Your task to perform on an android device: Open display settings Image 0: 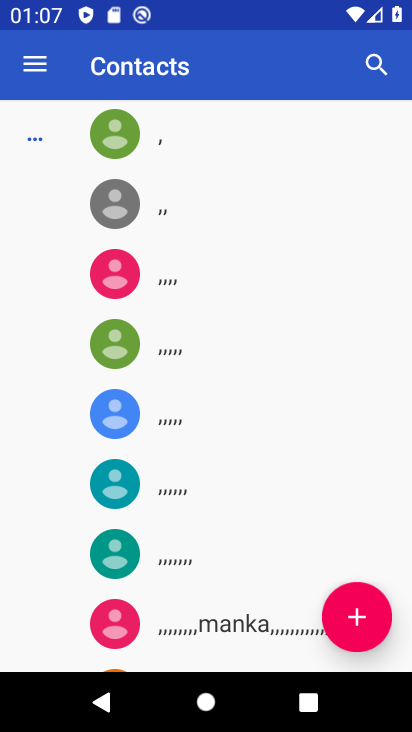
Step 0: press home button
Your task to perform on an android device: Open display settings Image 1: 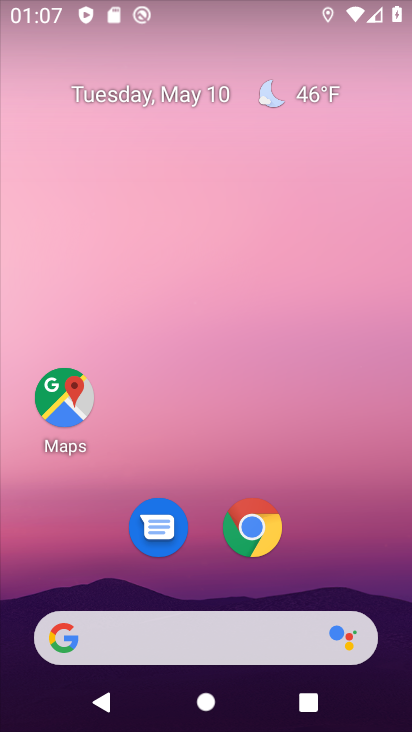
Step 1: drag from (351, 569) to (287, 191)
Your task to perform on an android device: Open display settings Image 2: 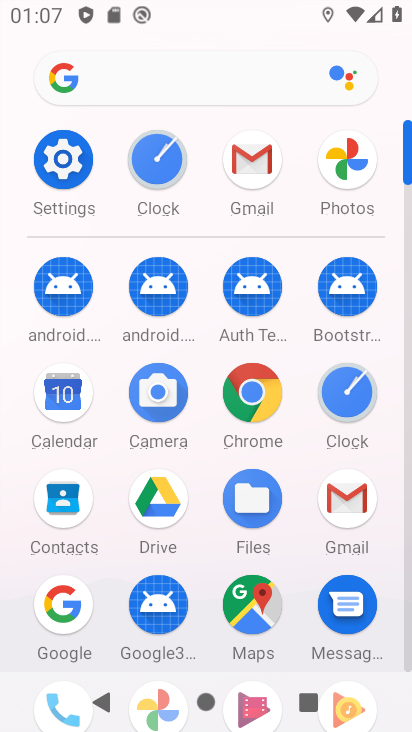
Step 2: click (59, 168)
Your task to perform on an android device: Open display settings Image 3: 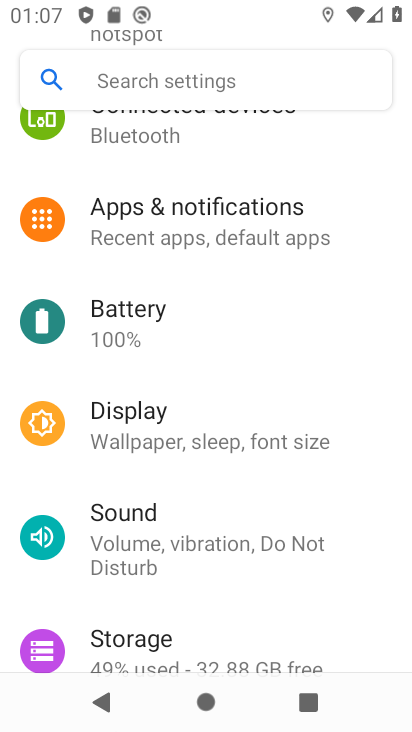
Step 3: click (170, 428)
Your task to perform on an android device: Open display settings Image 4: 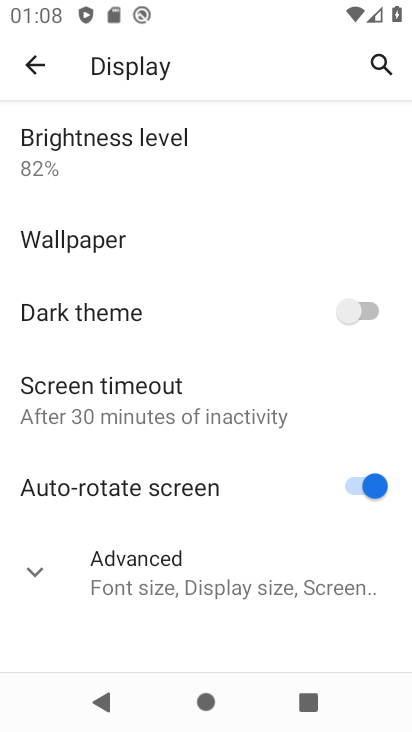
Step 4: click (127, 584)
Your task to perform on an android device: Open display settings Image 5: 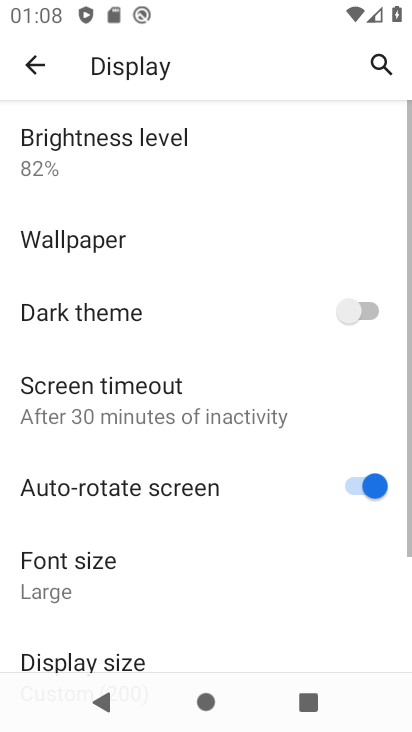
Step 5: task complete